Your task to perform on an android device: Open Chrome and go to the settings page Image 0: 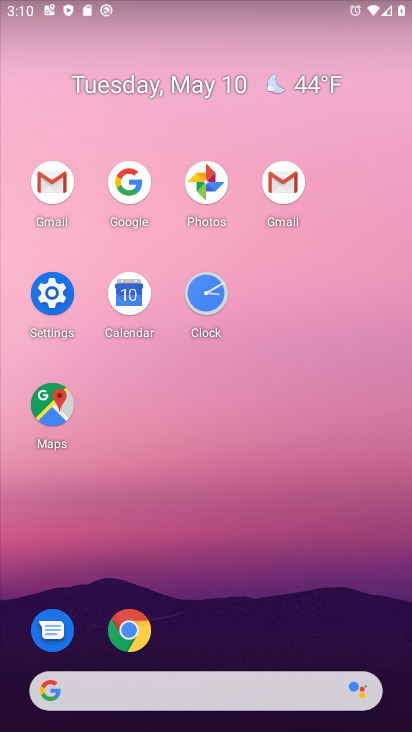
Step 0: click (123, 620)
Your task to perform on an android device: Open Chrome and go to the settings page Image 1: 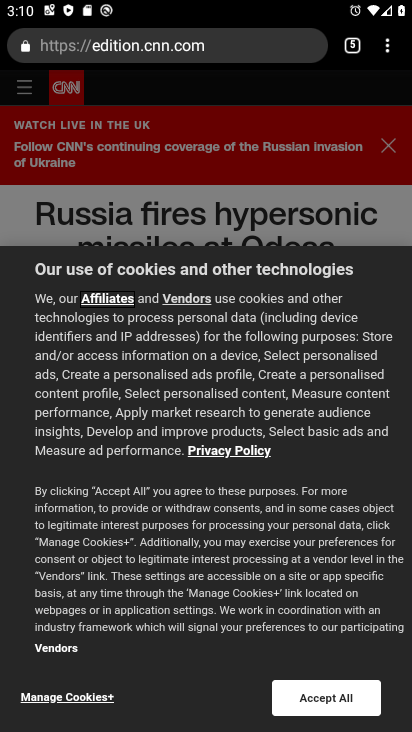
Step 1: click (393, 39)
Your task to perform on an android device: Open Chrome and go to the settings page Image 2: 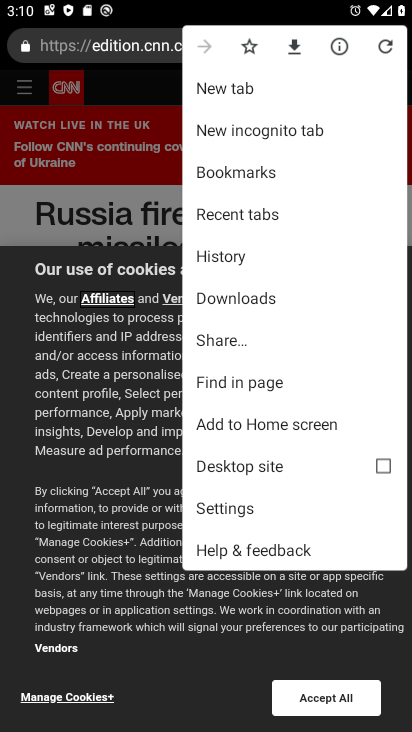
Step 2: click (223, 509)
Your task to perform on an android device: Open Chrome and go to the settings page Image 3: 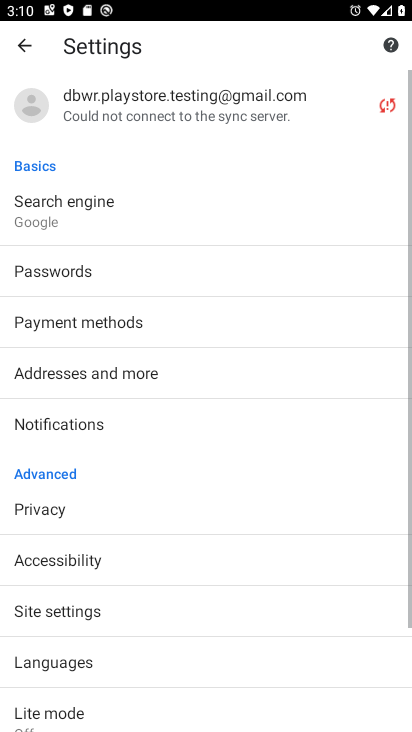
Step 3: task complete